Your task to perform on an android device: Open Reddit.com Image 0: 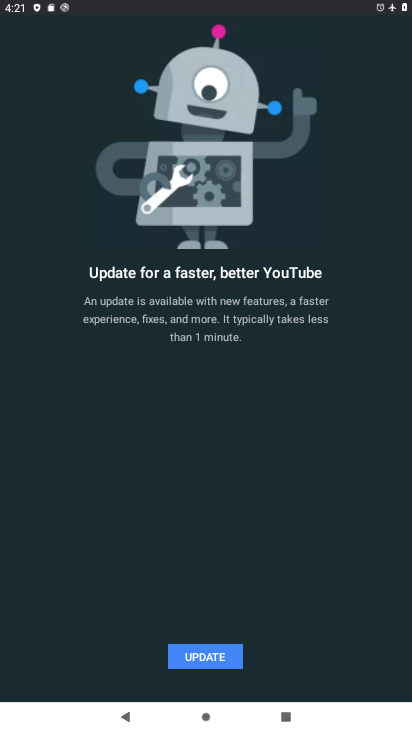
Step 0: press home button
Your task to perform on an android device: Open Reddit.com Image 1: 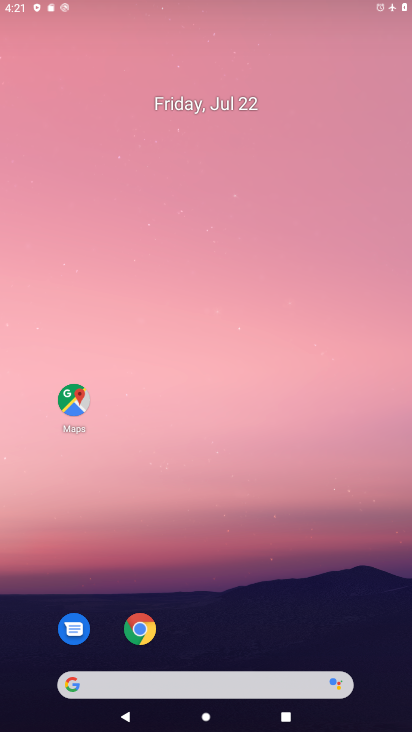
Step 1: drag from (391, 578) to (341, 72)
Your task to perform on an android device: Open Reddit.com Image 2: 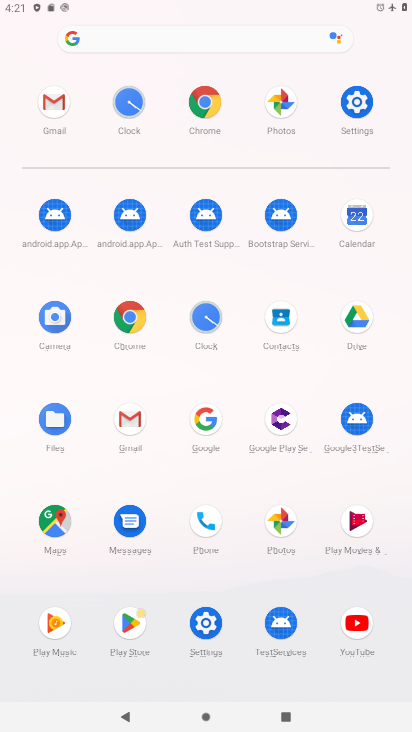
Step 2: click (216, 98)
Your task to perform on an android device: Open Reddit.com Image 3: 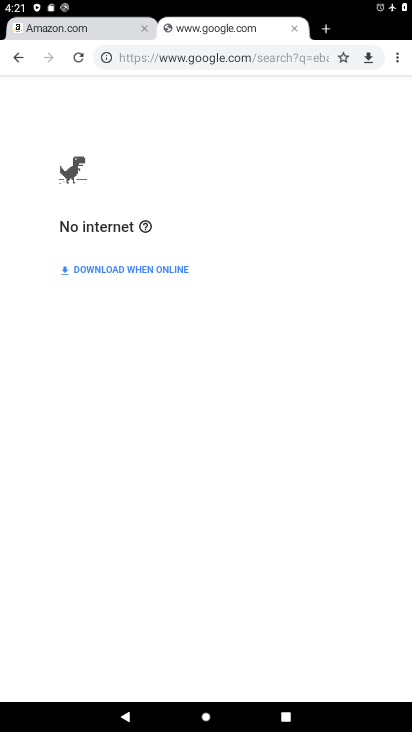
Step 3: click (244, 55)
Your task to perform on an android device: Open Reddit.com Image 4: 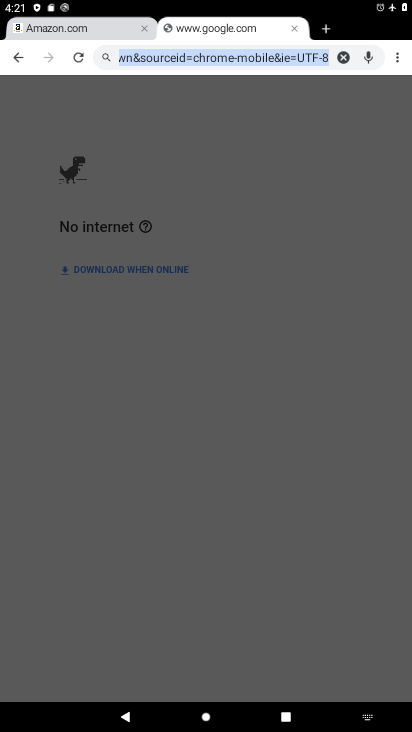
Step 4: type "reddit.com"
Your task to perform on an android device: Open Reddit.com Image 5: 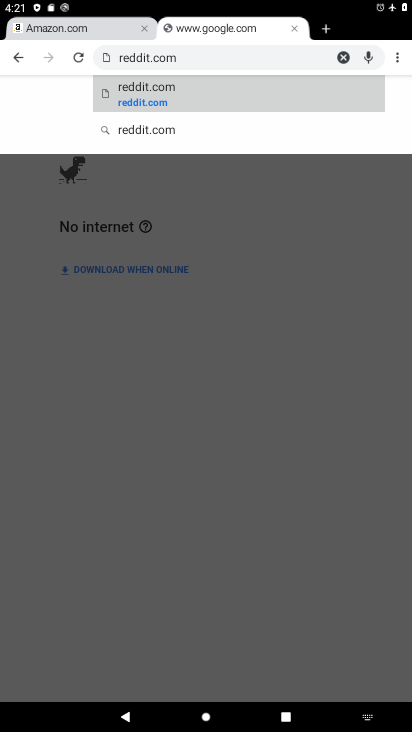
Step 5: click (155, 96)
Your task to perform on an android device: Open Reddit.com Image 6: 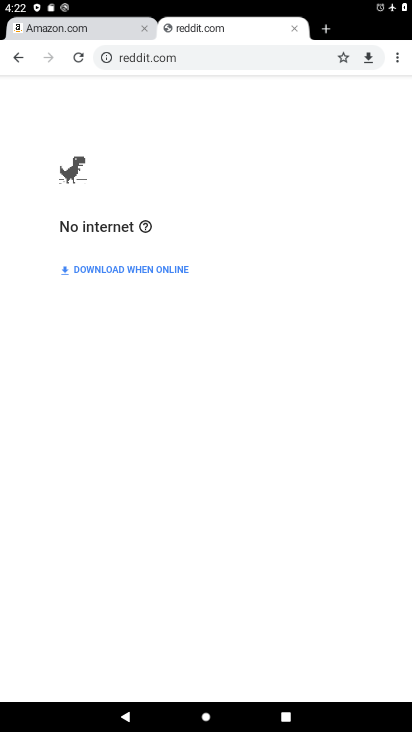
Step 6: task complete